Your task to perform on an android device: open device folders in google photos Image 0: 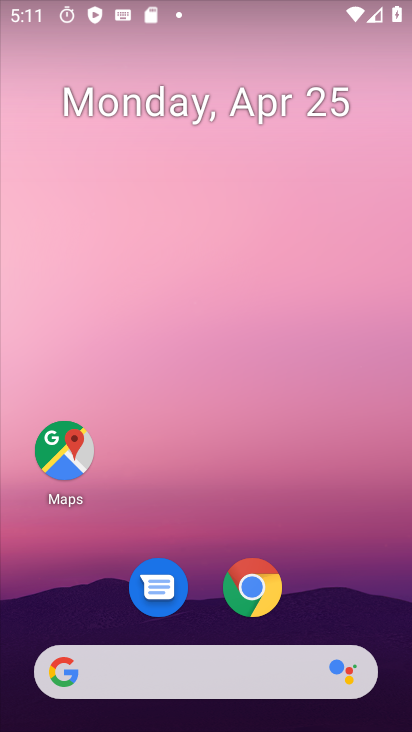
Step 0: drag from (326, 599) to (327, 174)
Your task to perform on an android device: open device folders in google photos Image 1: 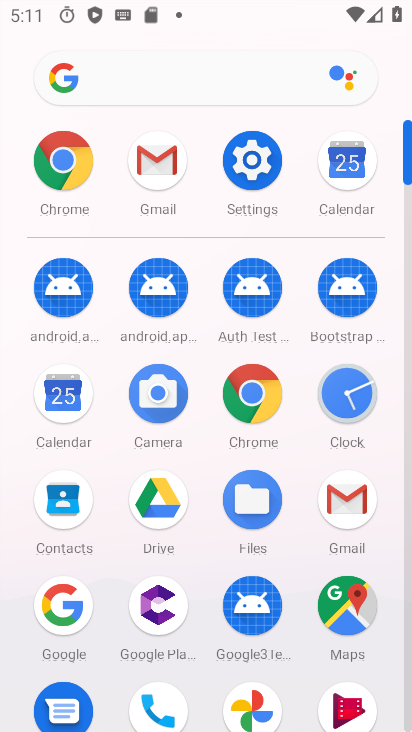
Step 1: click (258, 702)
Your task to perform on an android device: open device folders in google photos Image 2: 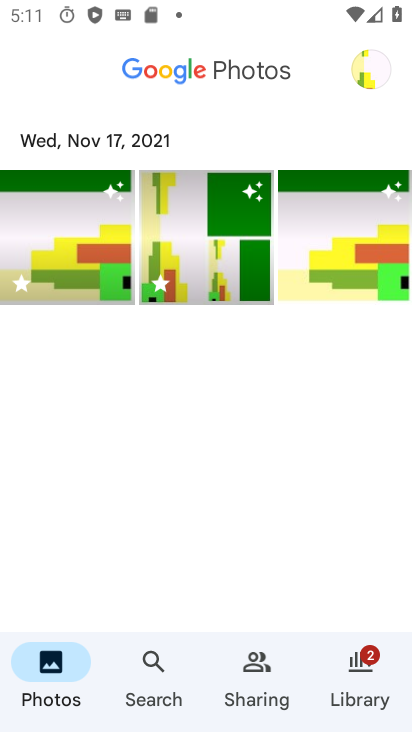
Step 2: click (375, 64)
Your task to perform on an android device: open device folders in google photos Image 3: 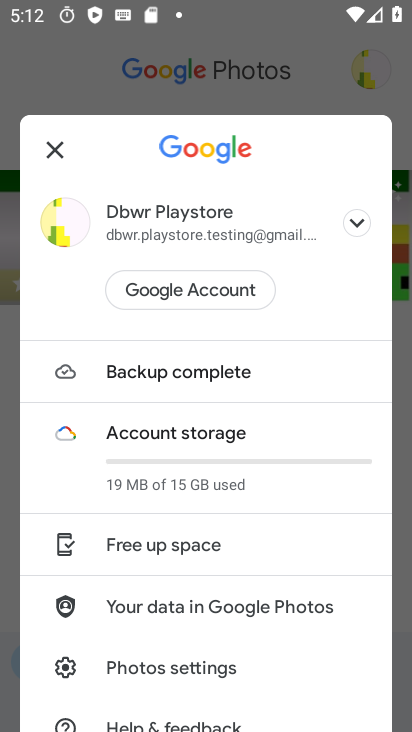
Step 3: drag from (207, 416) to (265, 237)
Your task to perform on an android device: open device folders in google photos Image 4: 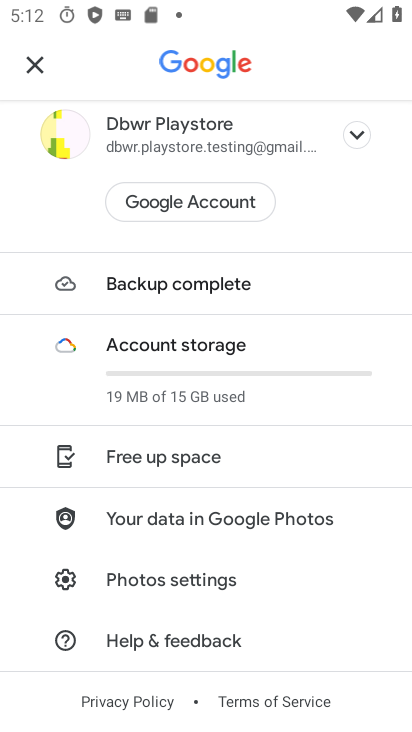
Step 4: click (170, 576)
Your task to perform on an android device: open device folders in google photos Image 5: 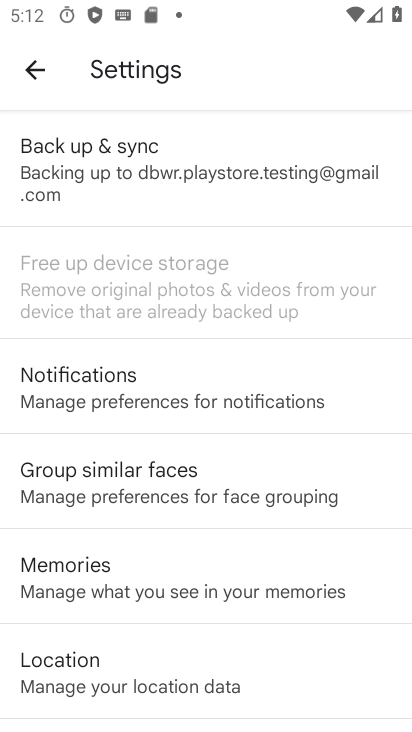
Step 5: click (27, 61)
Your task to perform on an android device: open device folders in google photos Image 6: 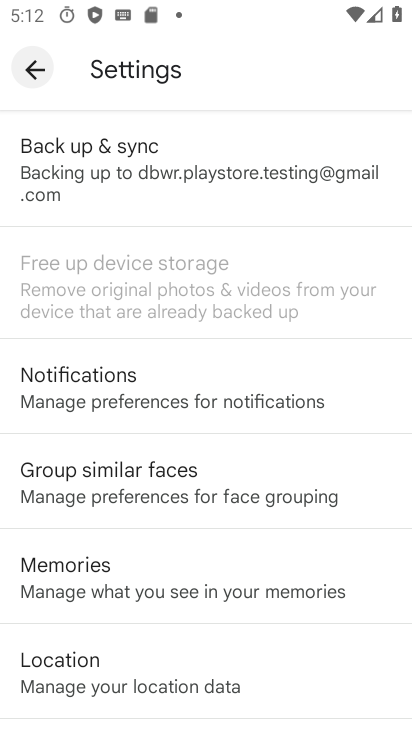
Step 6: click (27, 61)
Your task to perform on an android device: open device folders in google photos Image 7: 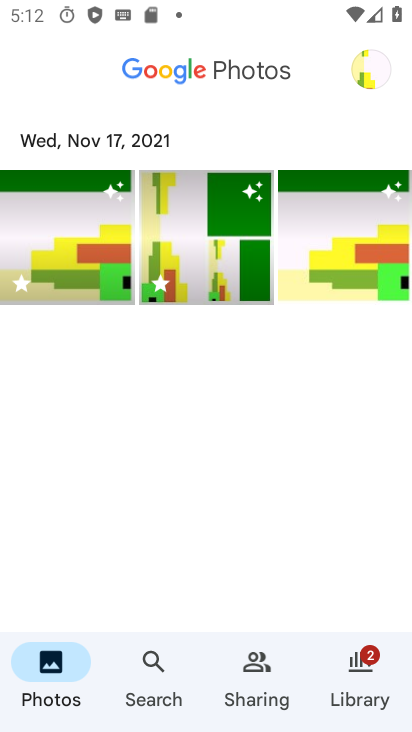
Step 7: task complete